Your task to perform on an android device: turn off picture-in-picture Image 0: 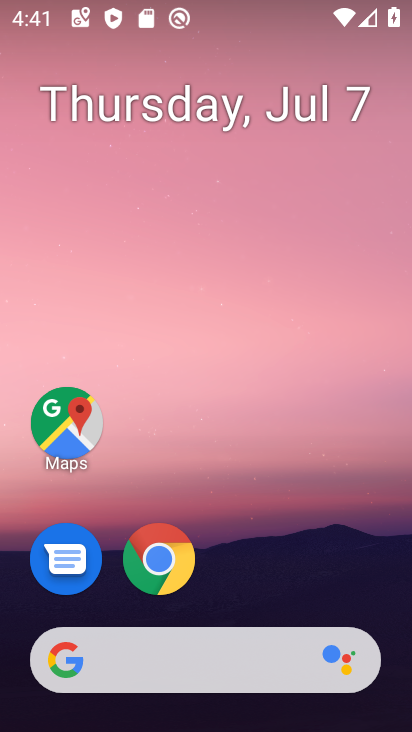
Step 0: drag from (253, 589) to (310, 20)
Your task to perform on an android device: turn off picture-in-picture Image 1: 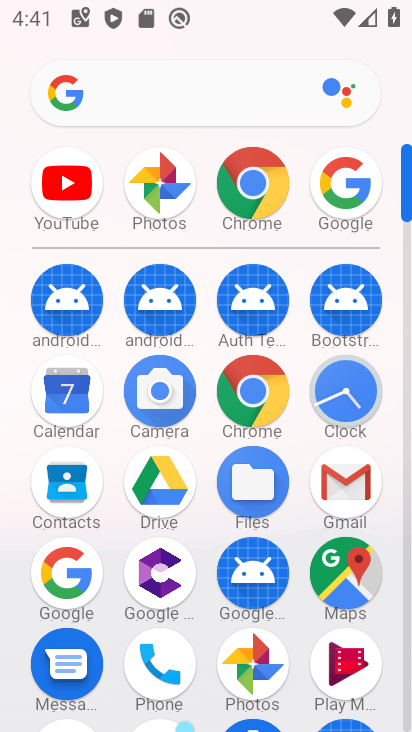
Step 1: drag from (171, 644) to (269, 26)
Your task to perform on an android device: turn off picture-in-picture Image 2: 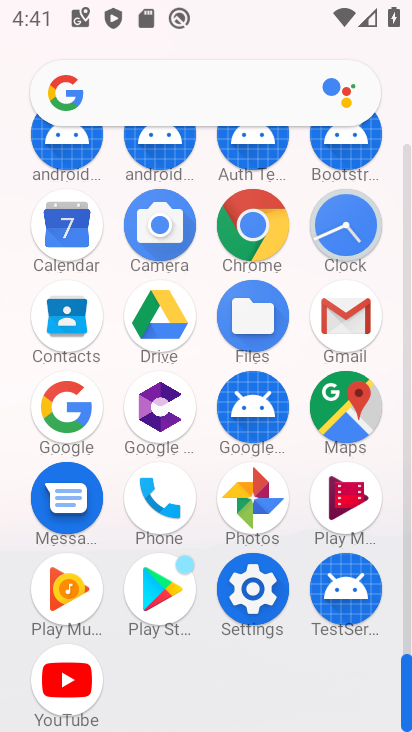
Step 2: click (247, 606)
Your task to perform on an android device: turn off picture-in-picture Image 3: 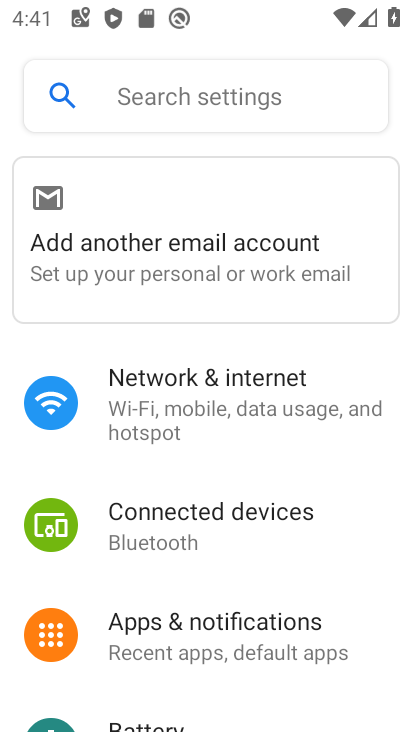
Step 3: click (202, 103)
Your task to perform on an android device: turn off picture-in-picture Image 4: 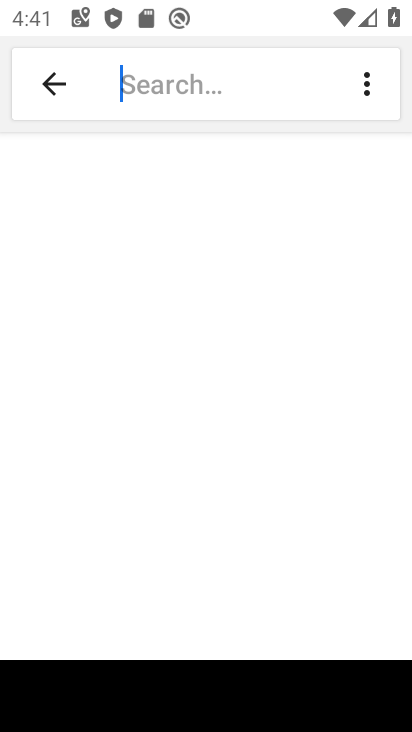
Step 4: click (60, 77)
Your task to perform on an android device: turn off picture-in-picture Image 5: 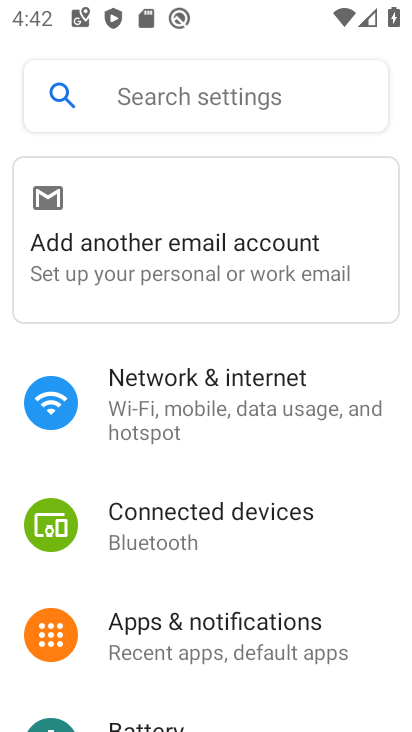
Step 5: click (265, 648)
Your task to perform on an android device: turn off picture-in-picture Image 6: 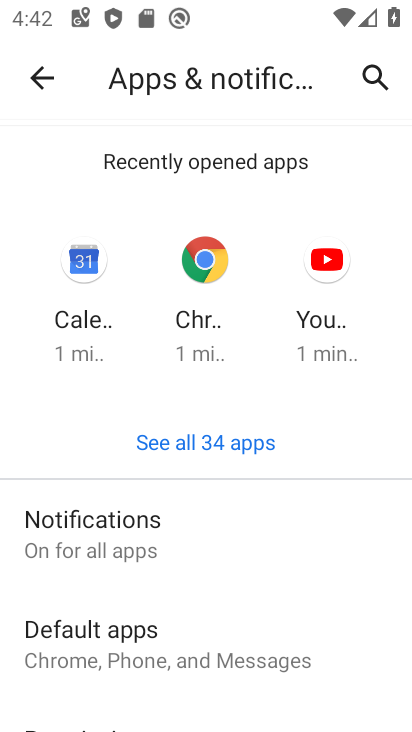
Step 6: drag from (143, 649) to (263, 4)
Your task to perform on an android device: turn off picture-in-picture Image 7: 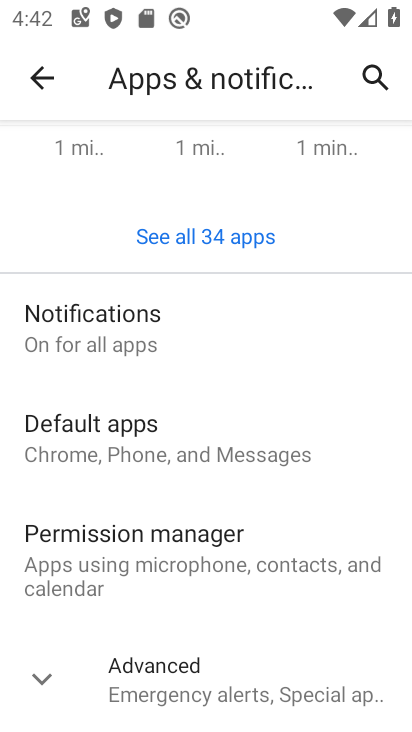
Step 7: click (162, 700)
Your task to perform on an android device: turn off picture-in-picture Image 8: 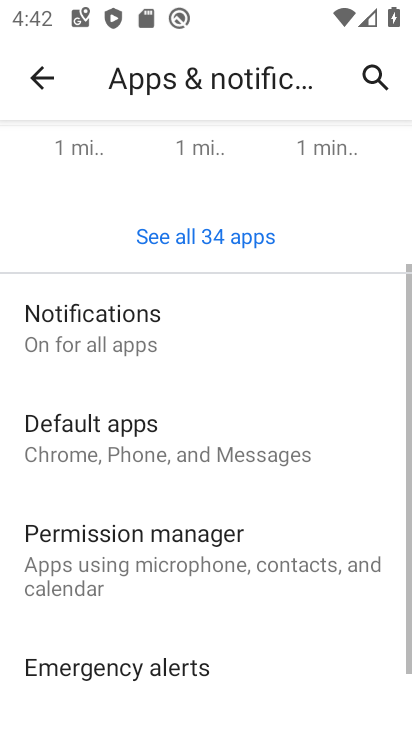
Step 8: drag from (135, 601) to (230, 3)
Your task to perform on an android device: turn off picture-in-picture Image 9: 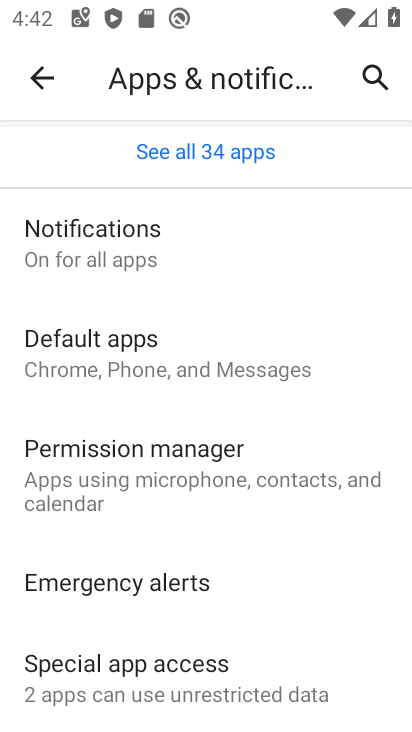
Step 9: click (99, 693)
Your task to perform on an android device: turn off picture-in-picture Image 10: 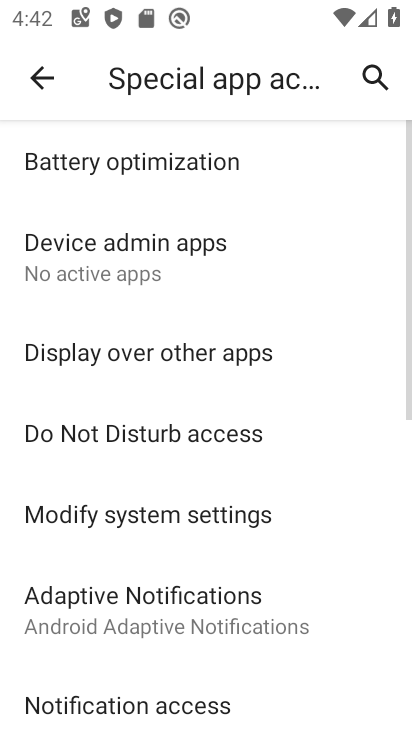
Step 10: drag from (148, 549) to (226, 12)
Your task to perform on an android device: turn off picture-in-picture Image 11: 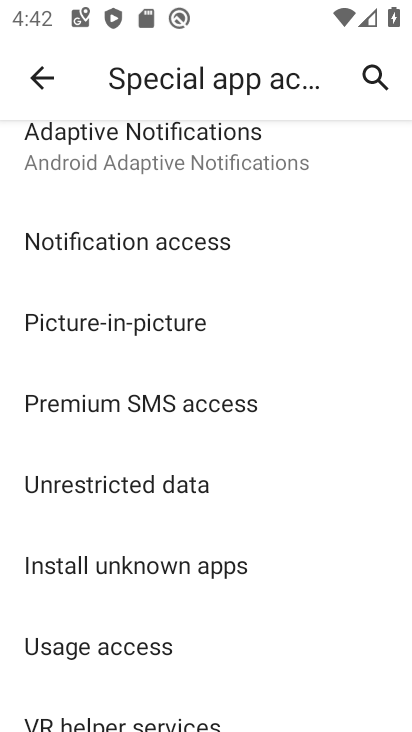
Step 11: click (123, 302)
Your task to perform on an android device: turn off picture-in-picture Image 12: 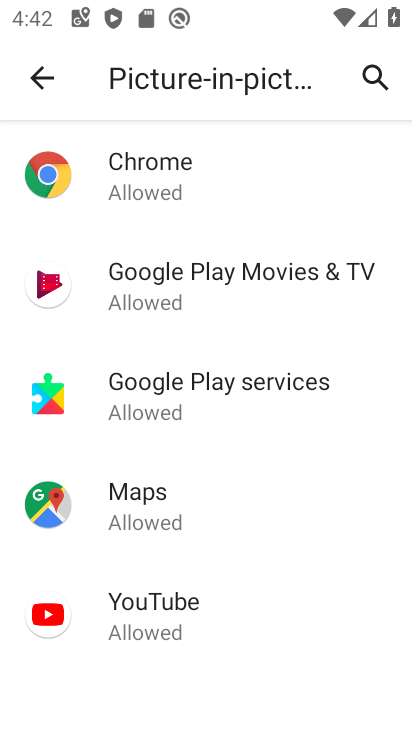
Step 12: click (151, 161)
Your task to perform on an android device: turn off picture-in-picture Image 13: 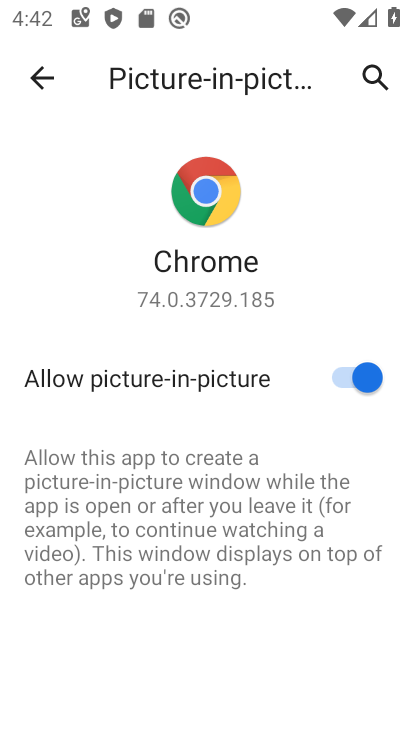
Step 13: click (356, 373)
Your task to perform on an android device: turn off picture-in-picture Image 14: 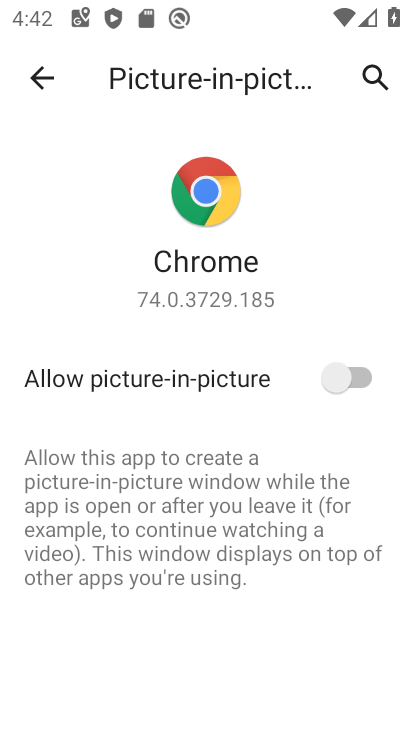
Step 14: task complete